Your task to perform on an android device: open the mobile data screen to see how much data has been used Image 0: 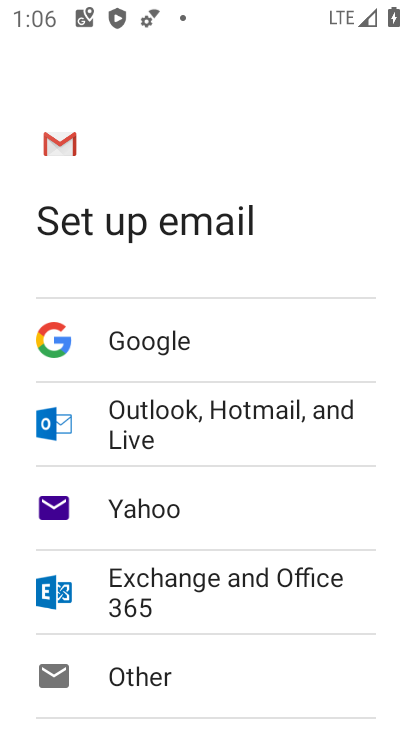
Step 0: press home button
Your task to perform on an android device: open the mobile data screen to see how much data has been used Image 1: 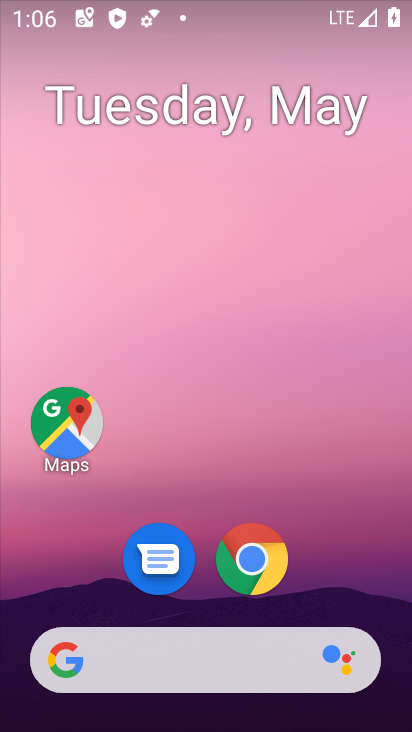
Step 1: drag from (326, 501) to (247, 85)
Your task to perform on an android device: open the mobile data screen to see how much data has been used Image 2: 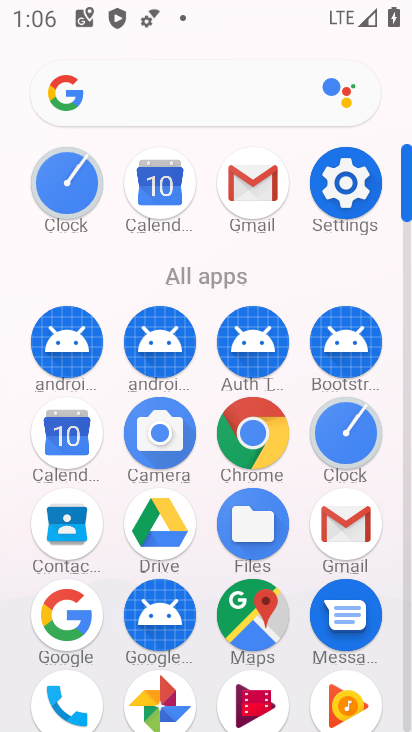
Step 2: click (341, 179)
Your task to perform on an android device: open the mobile data screen to see how much data has been used Image 3: 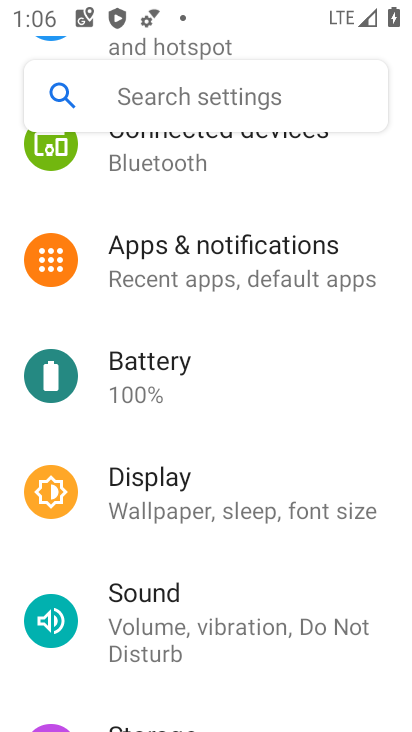
Step 3: drag from (218, 194) to (220, 696)
Your task to perform on an android device: open the mobile data screen to see how much data has been used Image 4: 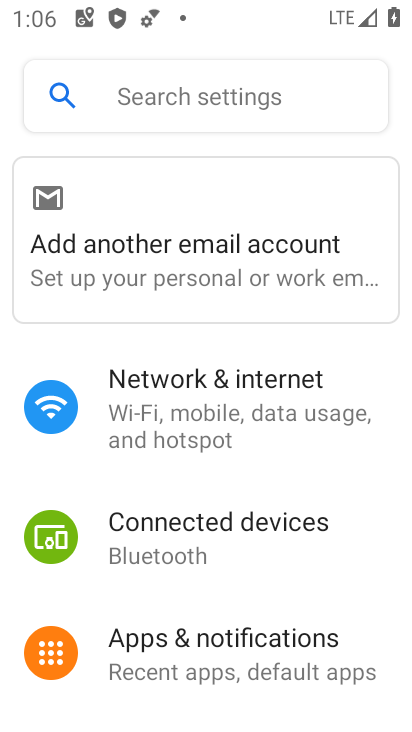
Step 4: click (202, 398)
Your task to perform on an android device: open the mobile data screen to see how much data has been used Image 5: 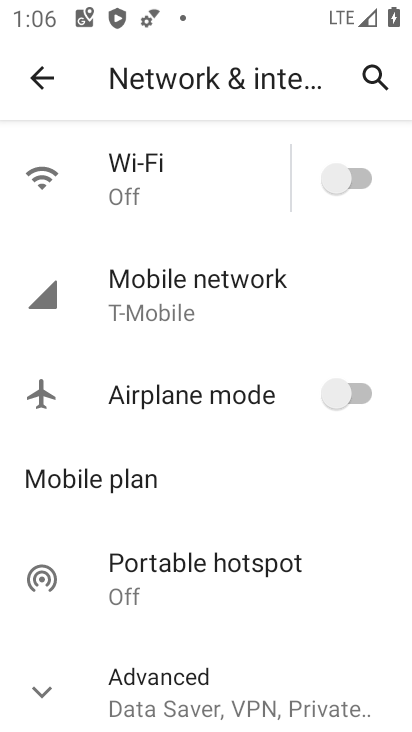
Step 5: click (179, 273)
Your task to perform on an android device: open the mobile data screen to see how much data has been used Image 6: 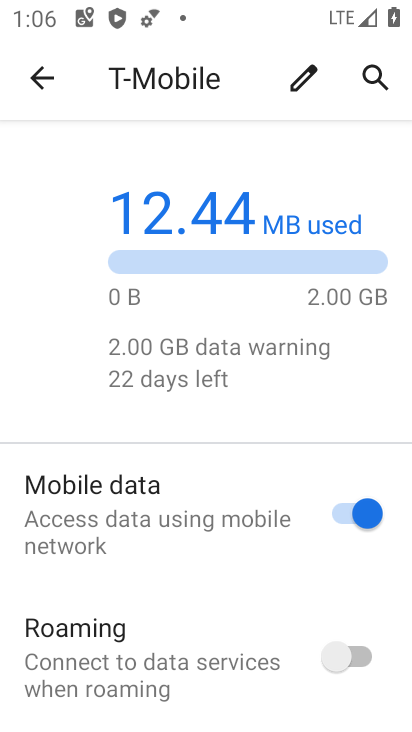
Step 6: task complete